Your task to perform on an android device: What's on my calendar today? Image 0: 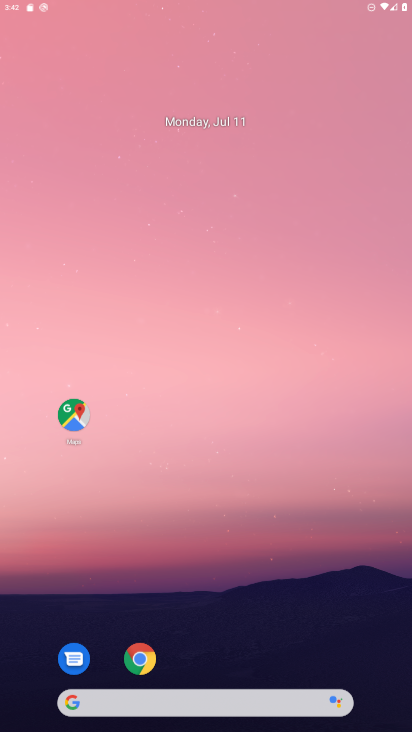
Step 0: click (238, 222)
Your task to perform on an android device: What's on my calendar today? Image 1: 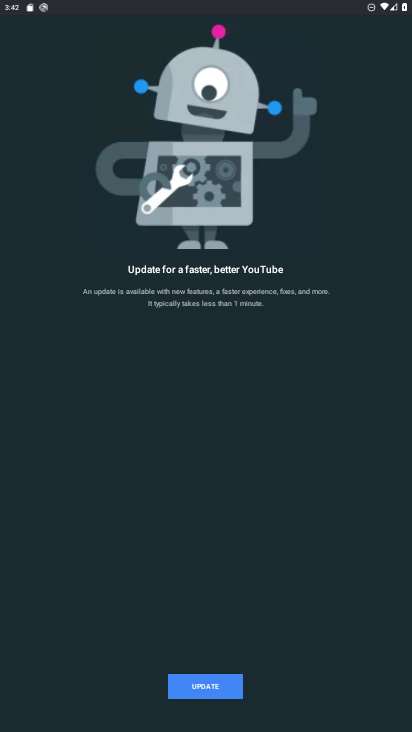
Step 1: press home button
Your task to perform on an android device: What's on my calendar today? Image 2: 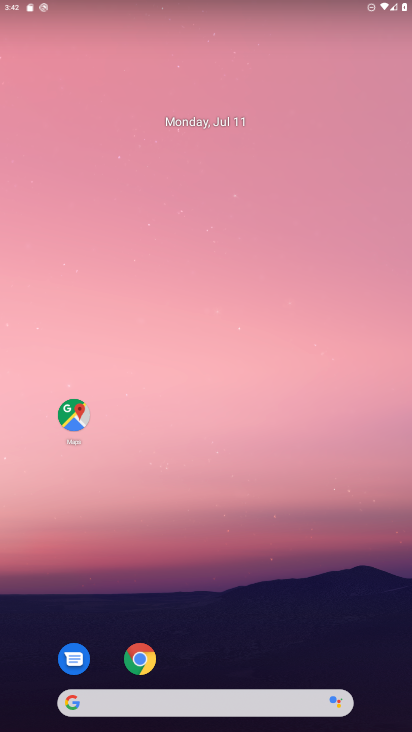
Step 2: drag from (273, 655) to (271, 161)
Your task to perform on an android device: What's on my calendar today? Image 3: 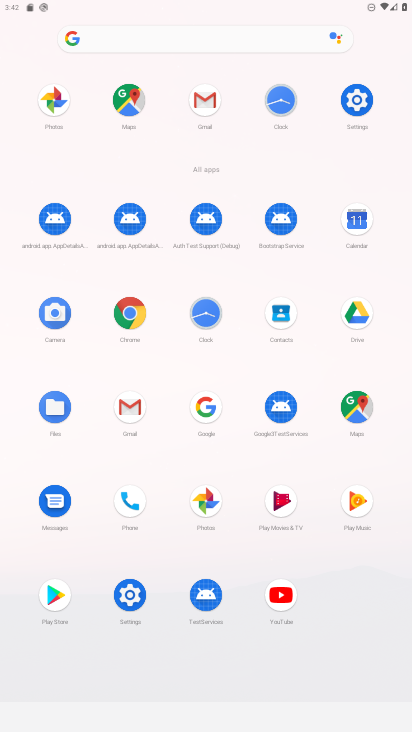
Step 3: click (362, 198)
Your task to perform on an android device: What's on my calendar today? Image 4: 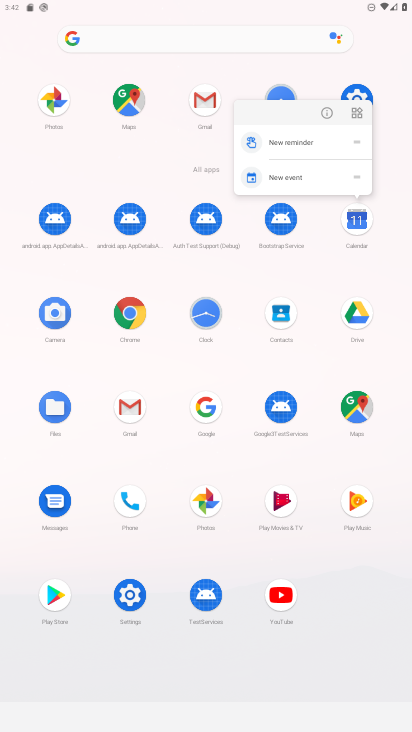
Step 4: click (359, 213)
Your task to perform on an android device: What's on my calendar today? Image 5: 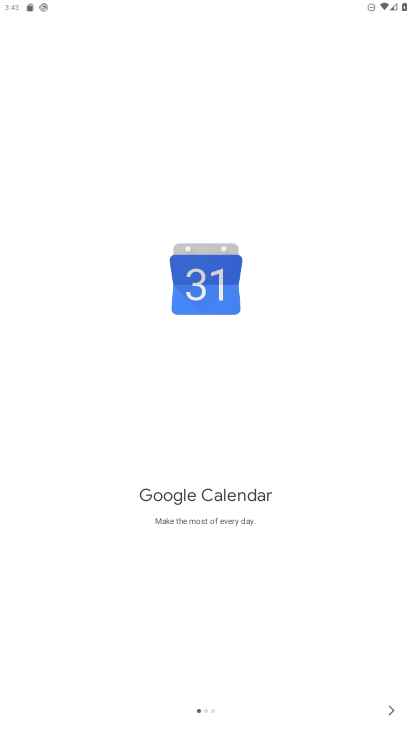
Step 5: click (391, 706)
Your task to perform on an android device: What's on my calendar today? Image 6: 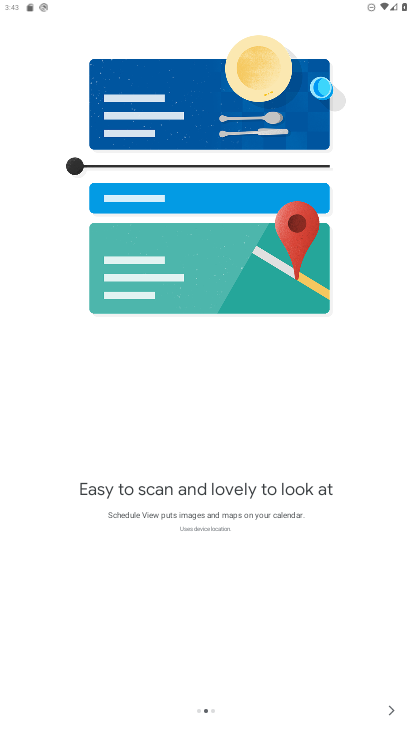
Step 6: click (391, 706)
Your task to perform on an android device: What's on my calendar today? Image 7: 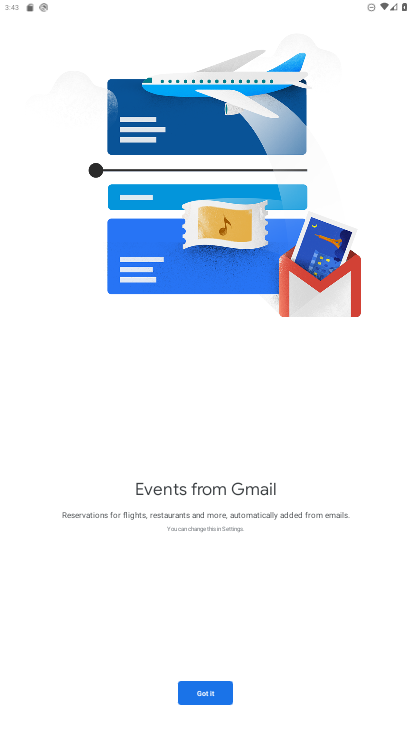
Step 7: click (207, 693)
Your task to perform on an android device: What's on my calendar today? Image 8: 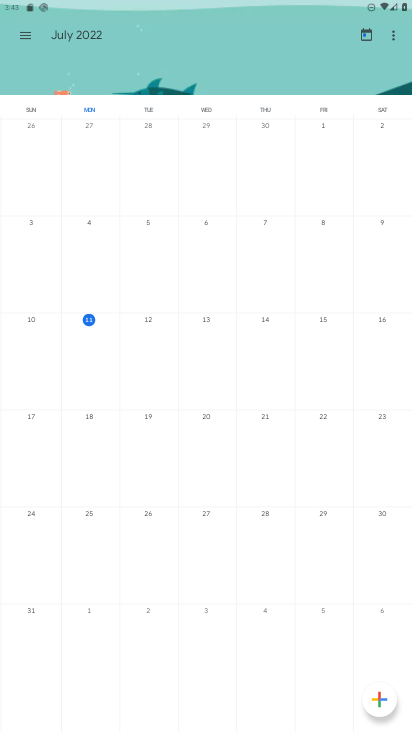
Step 8: click (94, 341)
Your task to perform on an android device: What's on my calendar today? Image 9: 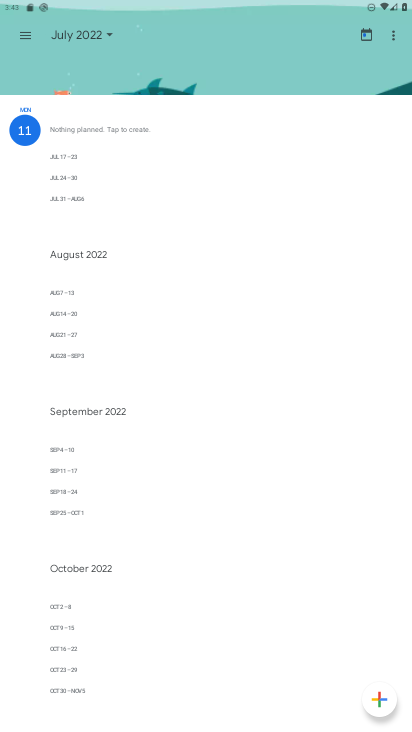
Step 9: task complete